Your task to perform on an android device: Go to Yahoo.com Image 0: 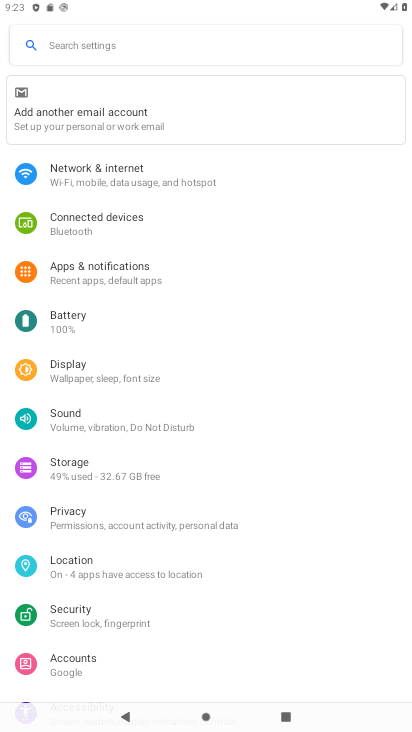
Step 0: press home button
Your task to perform on an android device: Go to Yahoo.com Image 1: 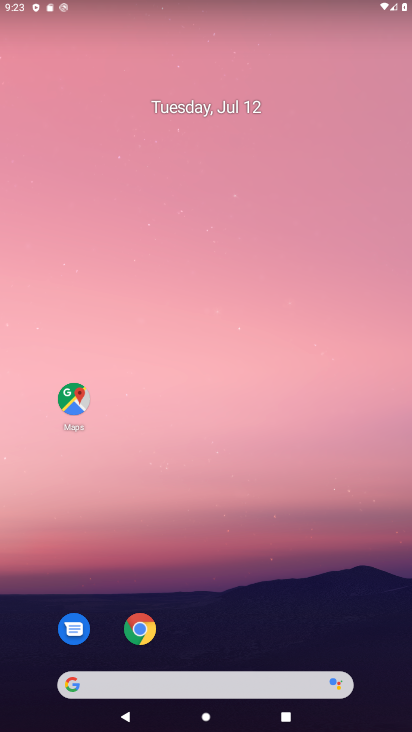
Step 1: drag from (272, 596) to (213, 15)
Your task to perform on an android device: Go to Yahoo.com Image 2: 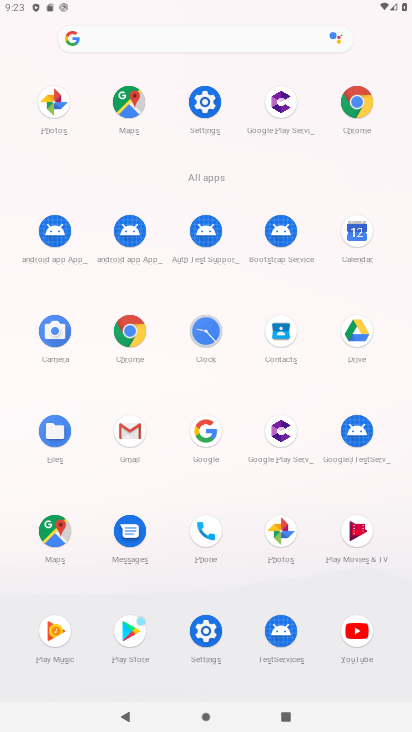
Step 2: click (362, 102)
Your task to perform on an android device: Go to Yahoo.com Image 3: 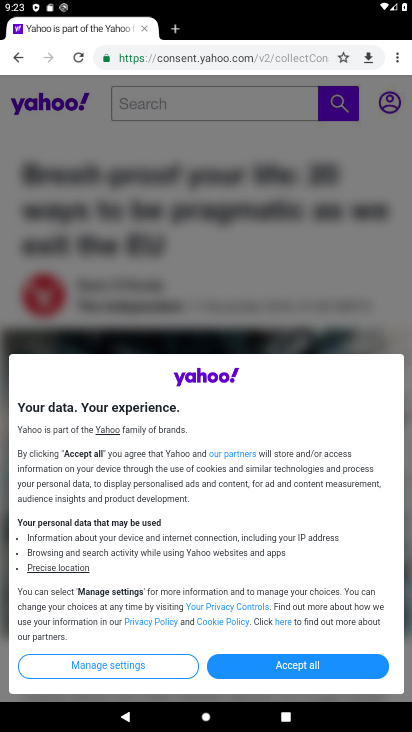
Step 3: task complete